Your task to perform on an android device: Open Reddit.com Image 0: 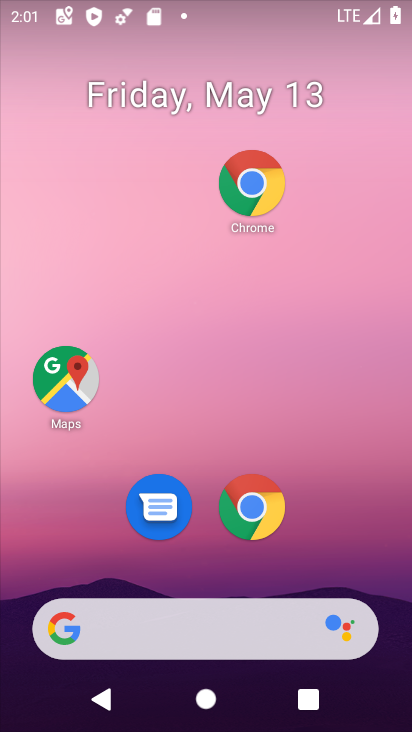
Step 0: drag from (334, 540) to (254, 33)
Your task to perform on an android device: Open Reddit.com Image 1: 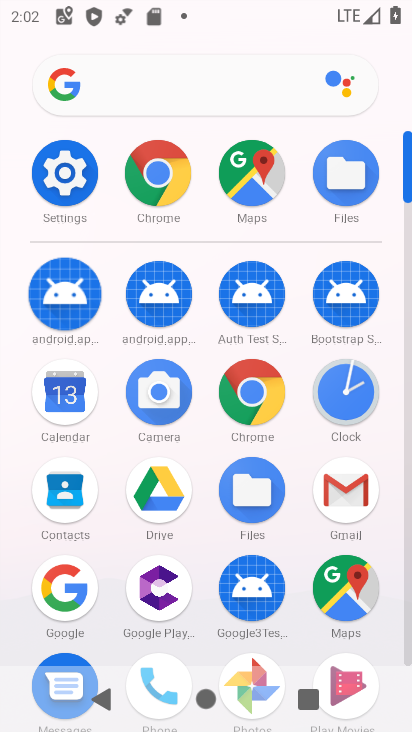
Step 1: click (153, 181)
Your task to perform on an android device: Open Reddit.com Image 2: 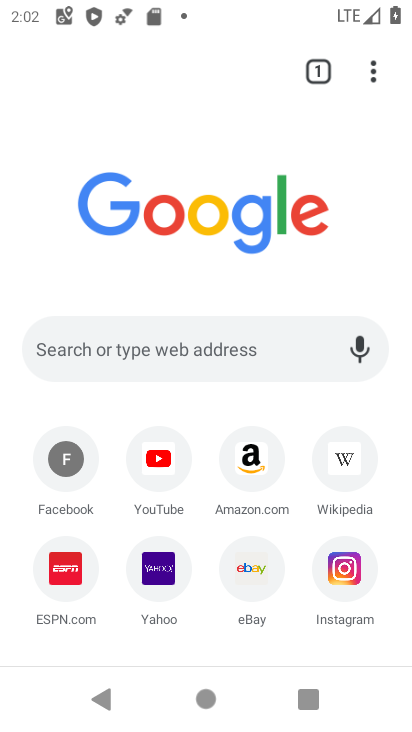
Step 2: click (155, 185)
Your task to perform on an android device: Open Reddit.com Image 3: 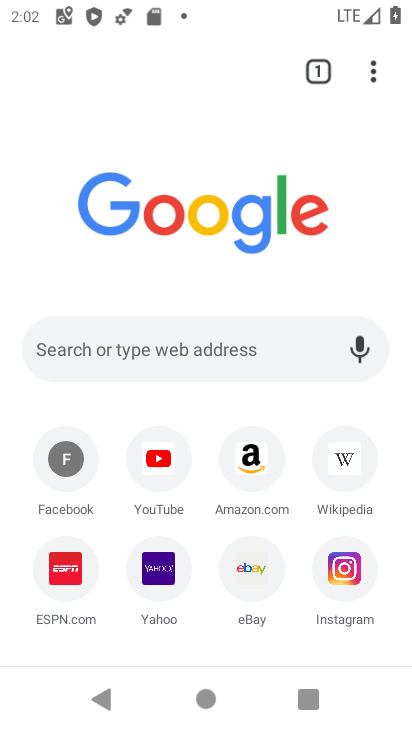
Step 3: click (159, 181)
Your task to perform on an android device: Open Reddit.com Image 4: 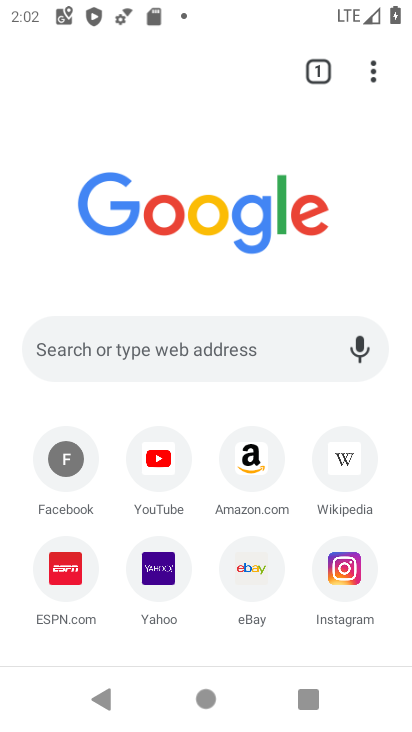
Step 4: click (112, 349)
Your task to perform on an android device: Open Reddit.com Image 5: 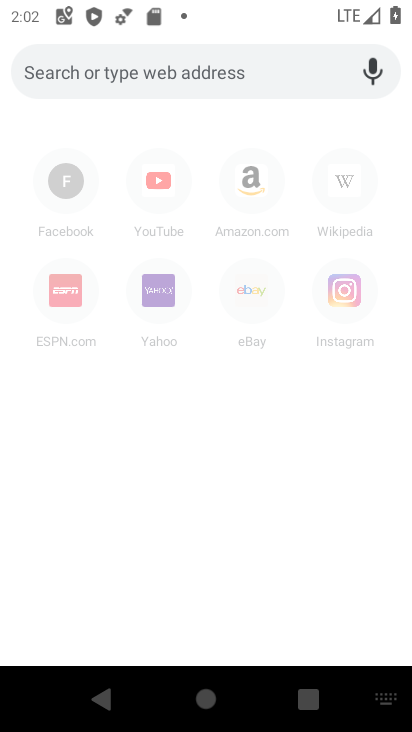
Step 5: click (61, 346)
Your task to perform on an android device: Open Reddit.com Image 6: 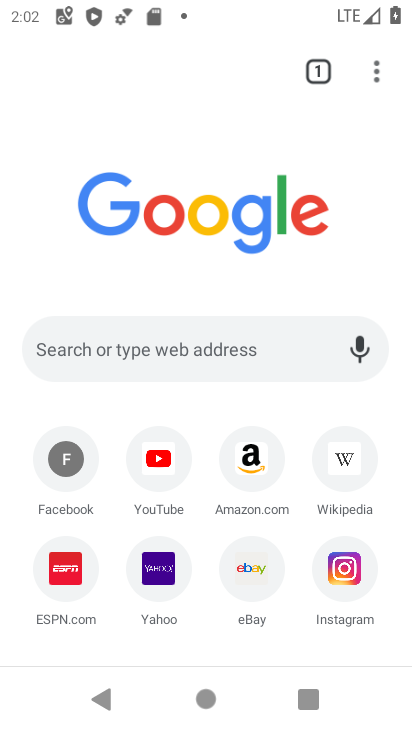
Step 6: click (72, 344)
Your task to perform on an android device: Open Reddit.com Image 7: 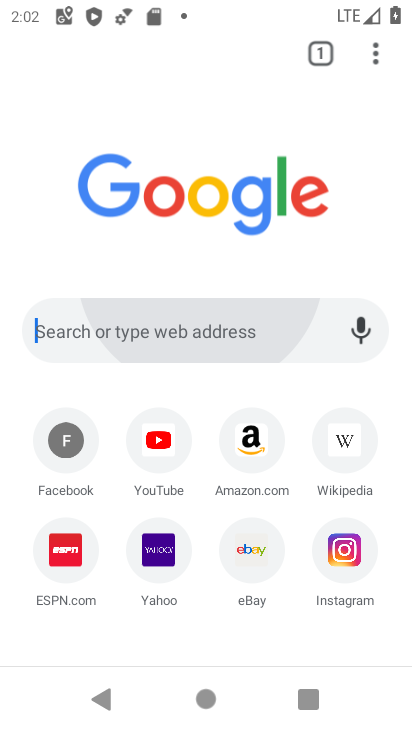
Step 7: click (65, 340)
Your task to perform on an android device: Open Reddit.com Image 8: 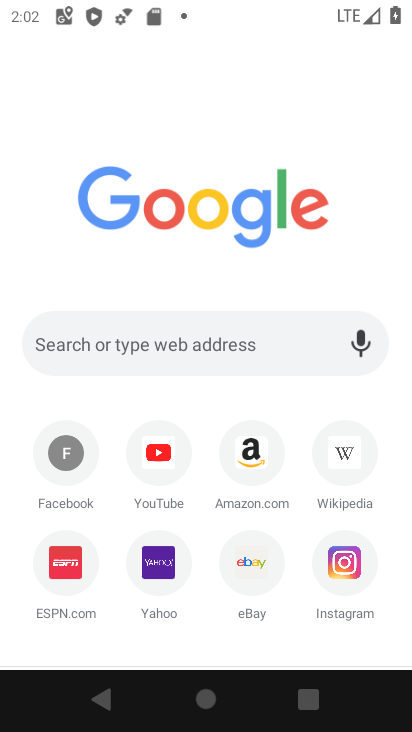
Step 8: click (77, 355)
Your task to perform on an android device: Open Reddit.com Image 9: 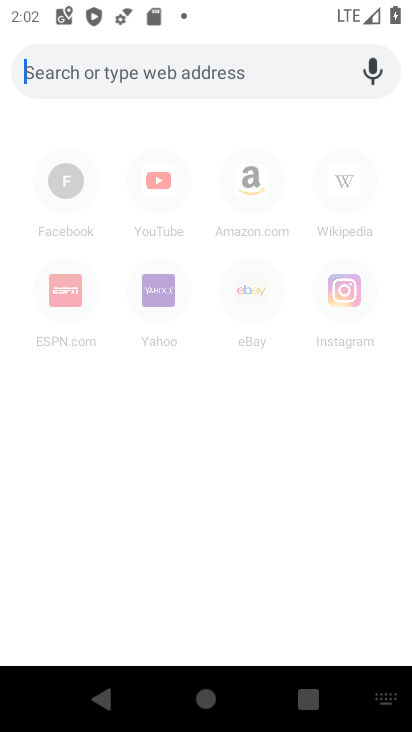
Step 9: type "reddit."
Your task to perform on an android device: Open Reddit.com Image 10: 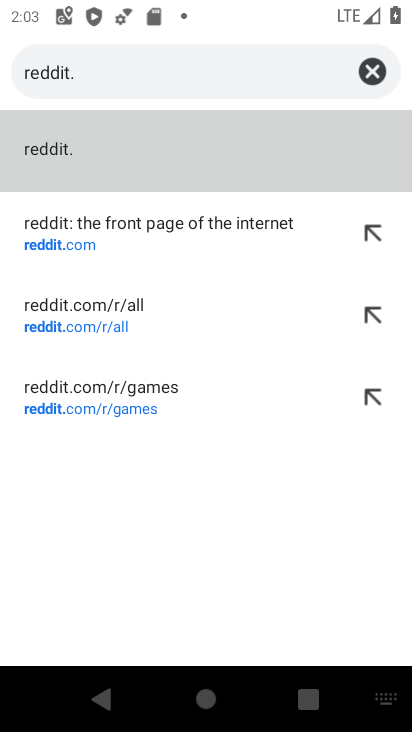
Step 10: click (61, 231)
Your task to perform on an android device: Open Reddit.com Image 11: 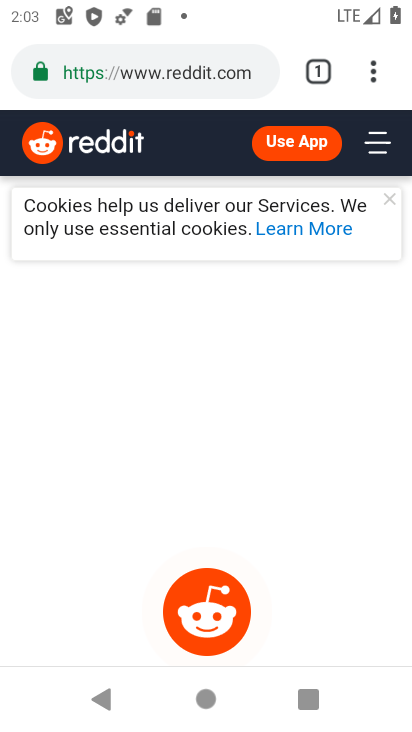
Step 11: task complete